Your task to perform on an android device: empty trash in google photos Image 0: 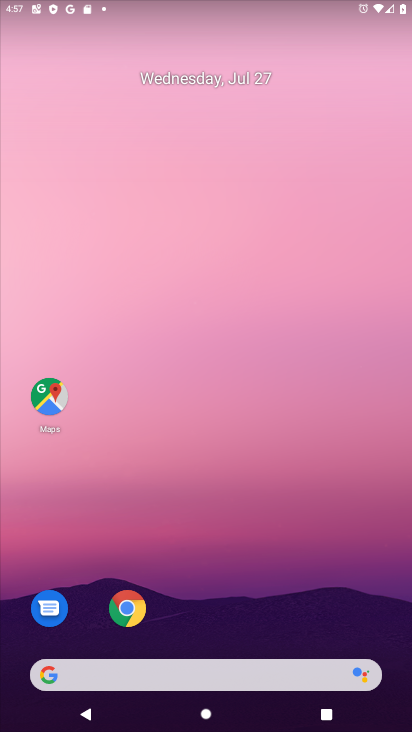
Step 0: drag from (271, 650) to (124, 1)
Your task to perform on an android device: empty trash in google photos Image 1: 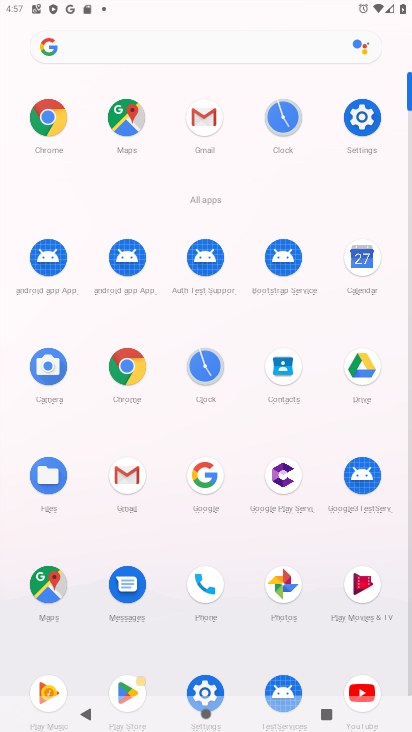
Step 1: click (281, 560)
Your task to perform on an android device: empty trash in google photos Image 2: 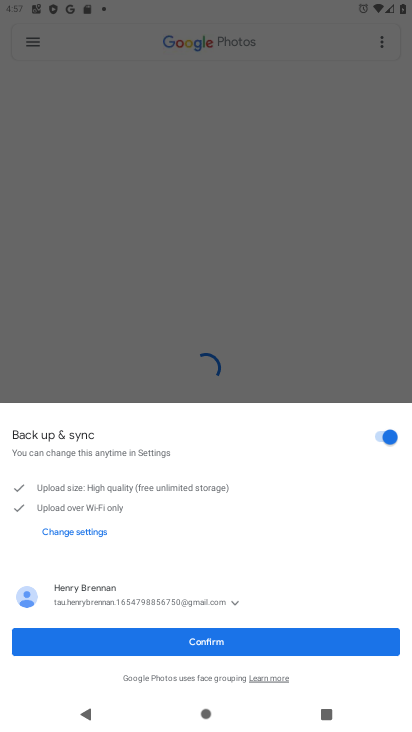
Step 2: click (182, 627)
Your task to perform on an android device: empty trash in google photos Image 3: 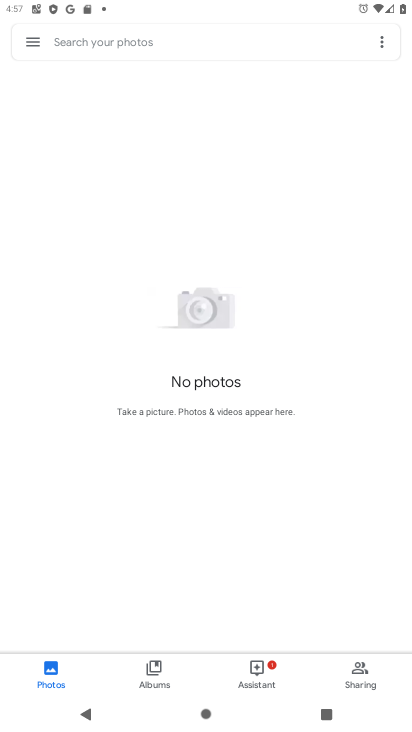
Step 3: click (34, 40)
Your task to perform on an android device: empty trash in google photos Image 4: 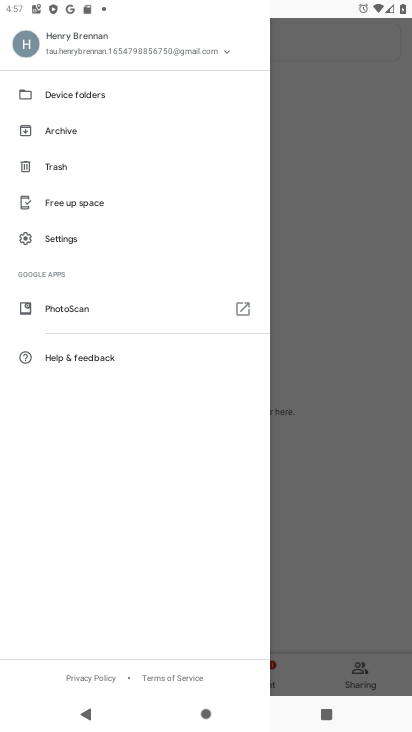
Step 4: click (83, 164)
Your task to perform on an android device: empty trash in google photos Image 5: 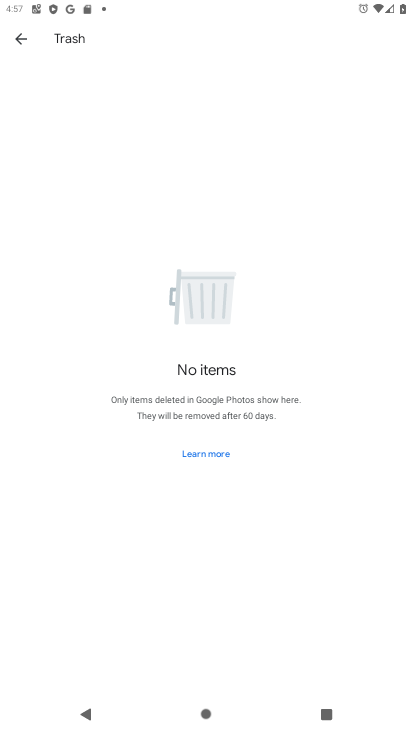
Step 5: task complete